Your task to perform on an android device: Go to location settings Image 0: 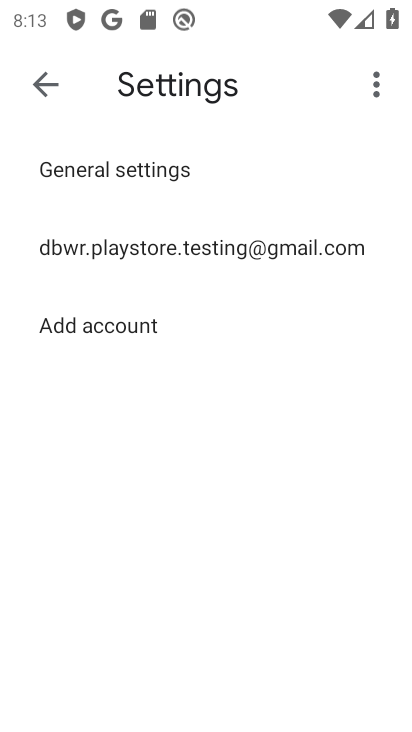
Step 0: press back button
Your task to perform on an android device: Go to location settings Image 1: 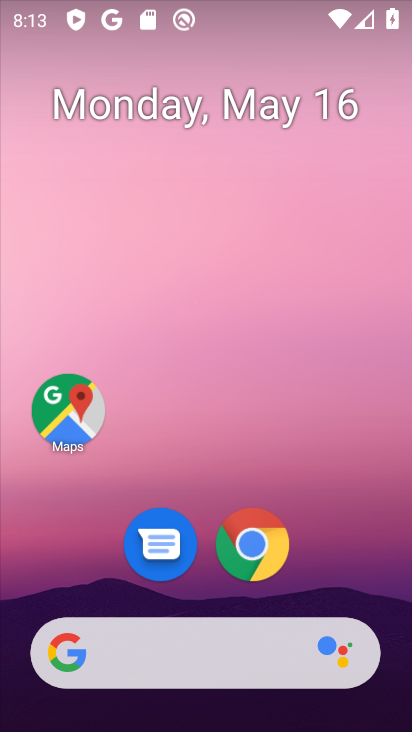
Step 1: drag from (360, 578) to (331, 226)
Your task to perform on an android device: Go to location settings Image 2: 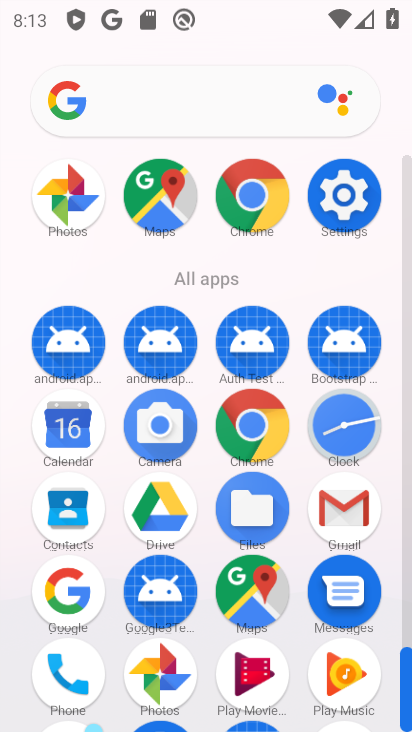
Step 2: click (357, 176)
Your task to perform on an android device: Go to location settings Image 3: 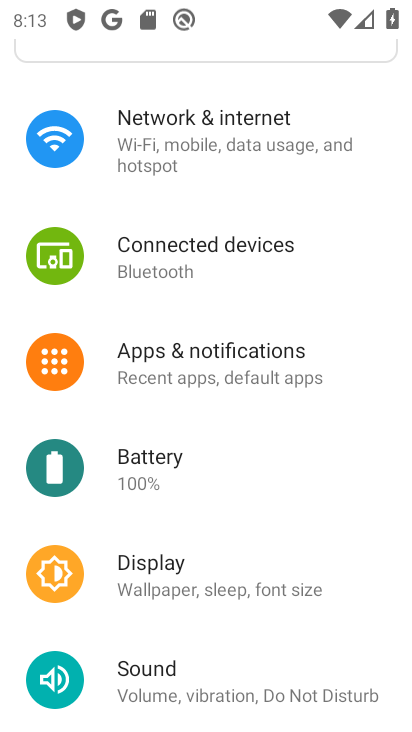
Step 3: drag from (207, 592) to (228, 210)
Your task to perform on an android device: Go to location settings Image 4: 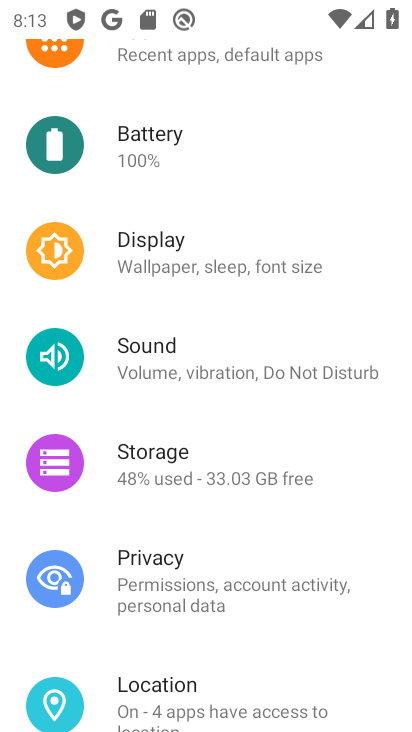
Step 4: drag from (294, 602) to (273, 310)
Your task to perform on an android device: Go to location settings Image 5: 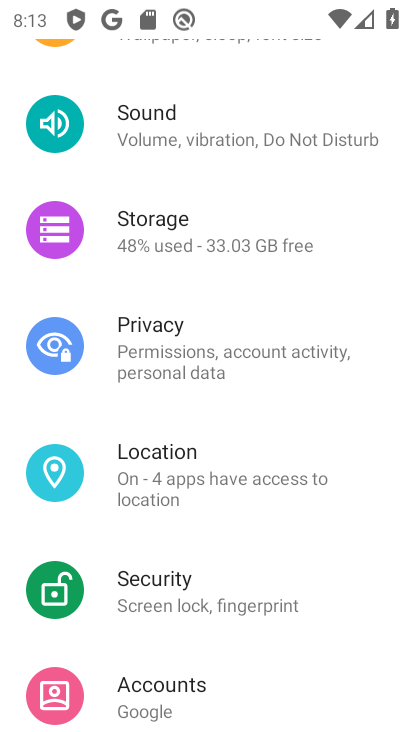
Step 5: click (284, 461)
Your task to perform on an android device: Go to location settings Image 6: 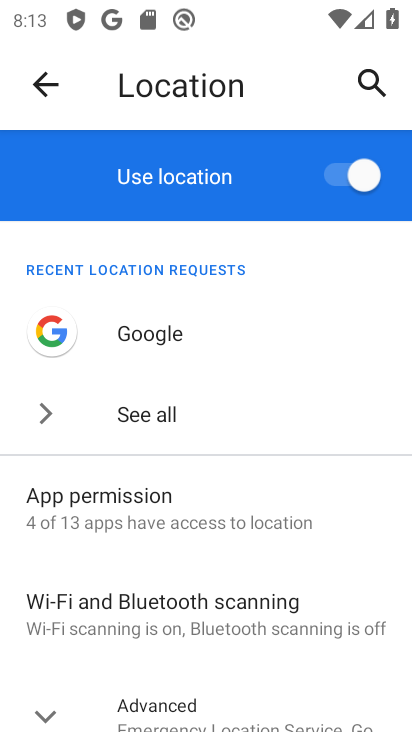
Step 6: task complete